Your task to perform on an android device: check android version Image 0: 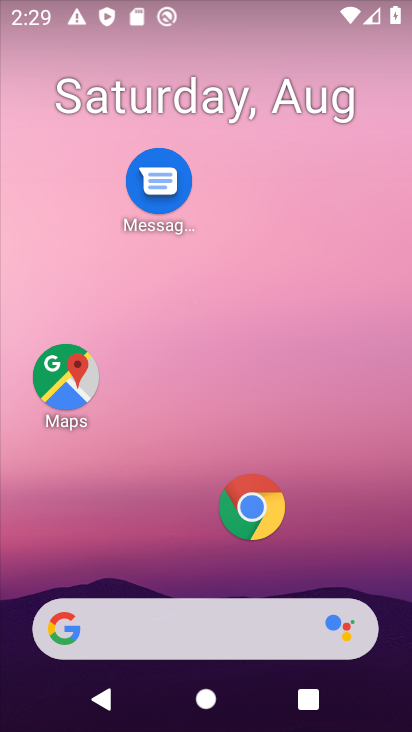
Step 0: drag from (158, 358) to (178, 266)
Your task to perform on an android device: check android version Image 1: 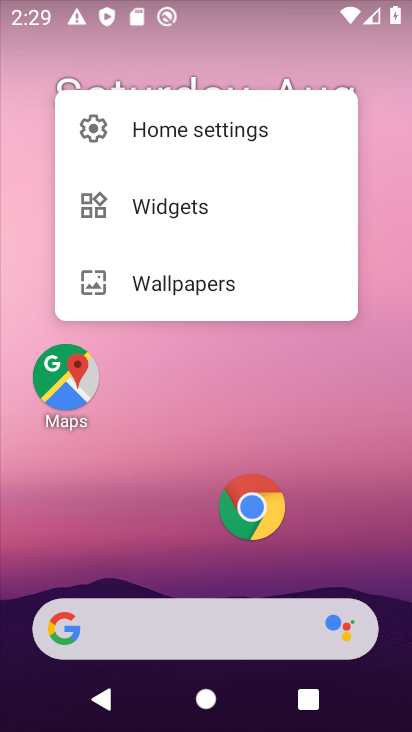
Step 1: drag from (160, 536) to (206, 0)
Your task to perform on an android device: check android version Image 2: 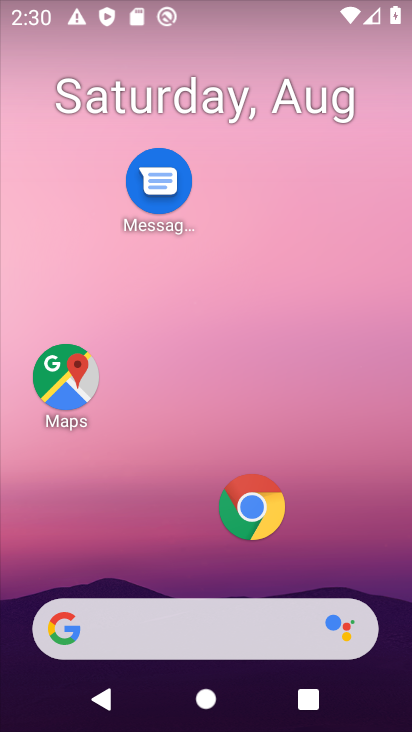
Step 2: drag from (143, 590) to (183, 140)
Your task to perform on an android device: check android version Image 3: 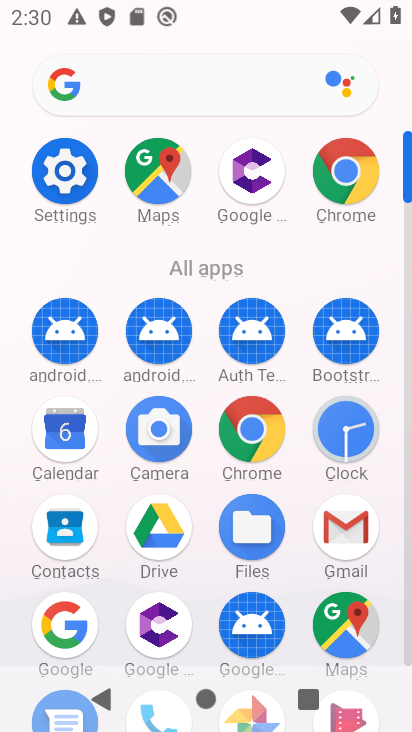
Step 3: click (67, 194)
Your task to perform on an android device: check android version Image 4: 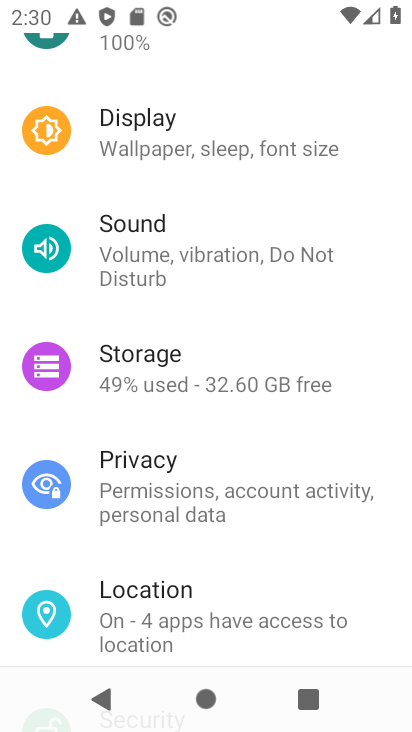
Step 4: drag from (169, 589) to (194, 212)
Your task to perform on an android device: check android version Image 5: 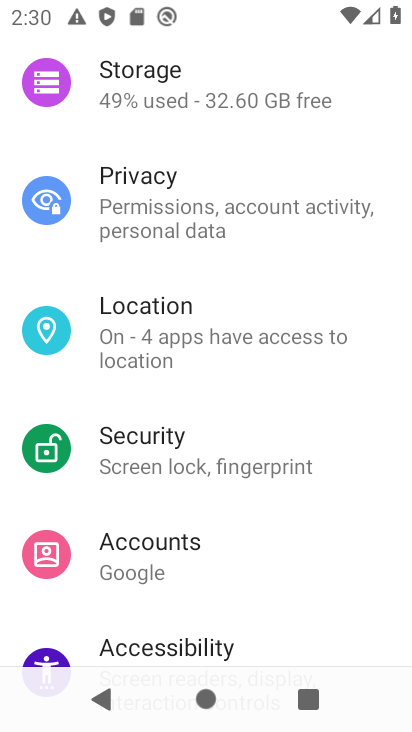
Step 5: drag from (184, 538) to (244, 240)
Your task to perform on an android device: check android version Image 6: 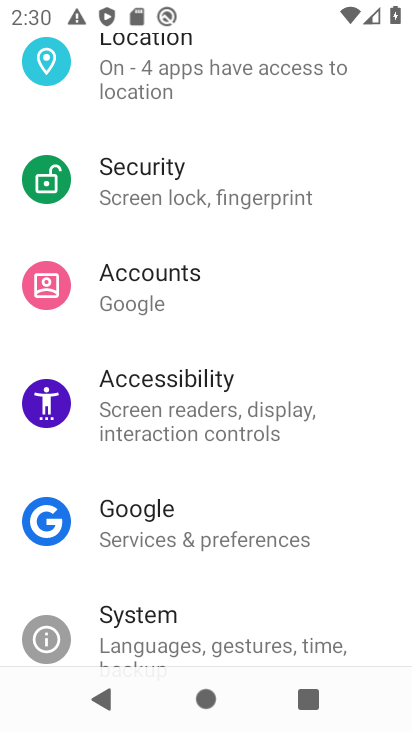
Step 6: drag from (235, 598) to (256, 245)
Your task to perform on an android device: check android version Image 7: 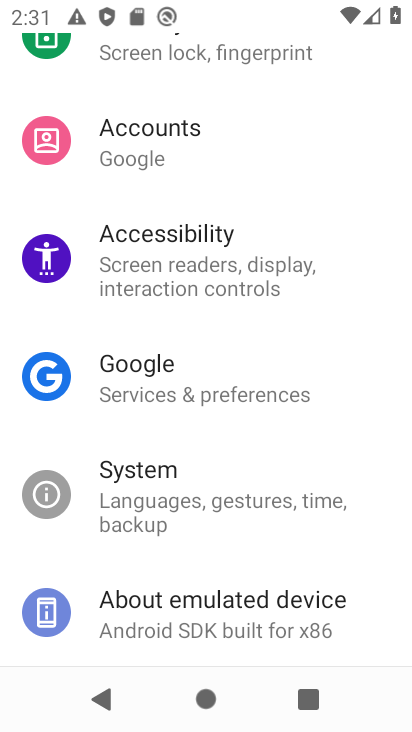
Step 7: click (203, 622)
Your task to perform on an android device: check android version Image 8: 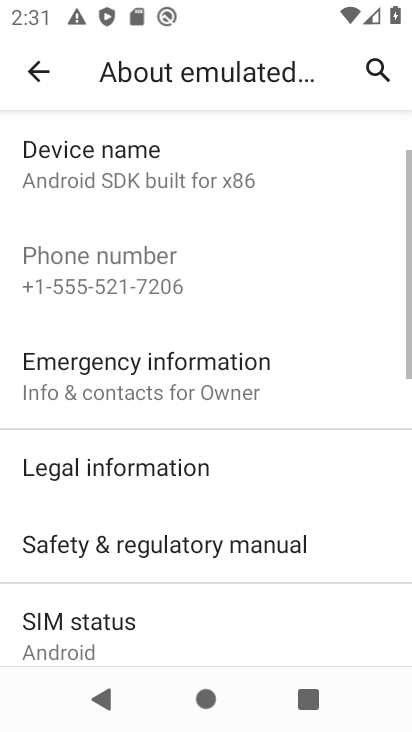
Step 8: drag from (115, 507) to (115, 157)
Your task to perform on an android device: check android version Image 9: 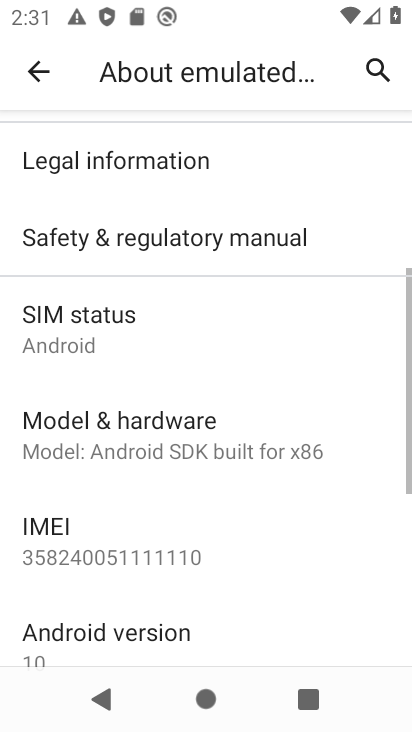
Step 9: drag from (116, 579) to (112, 316)
Your task to perform on an android device: check android version Image 10: 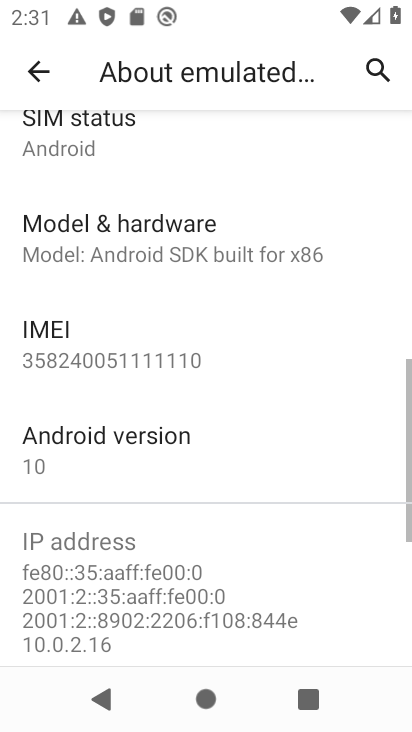
Step 10: click (98, 454)
Your task to perform on an android device: check android version Image 11: 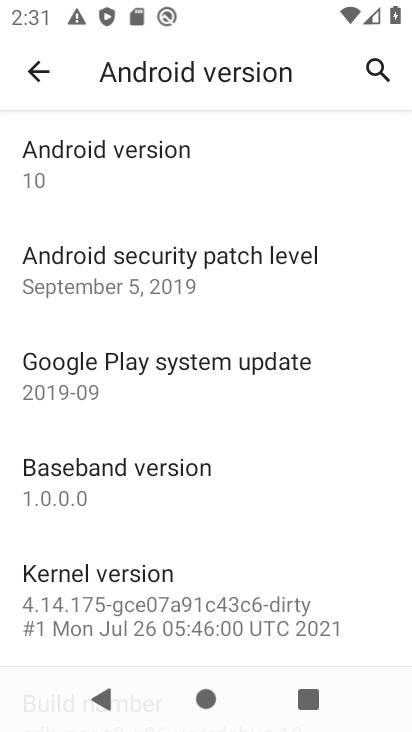
Step 11: task complete